Your task to perform on an android device: open chrome privacy settings Image 0: 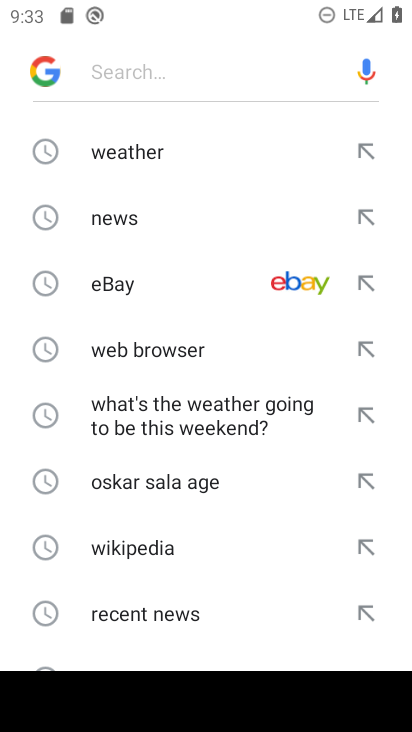
Step 0: press home button
Your task to perform on an android device: open chrome privacy settings Image 1: 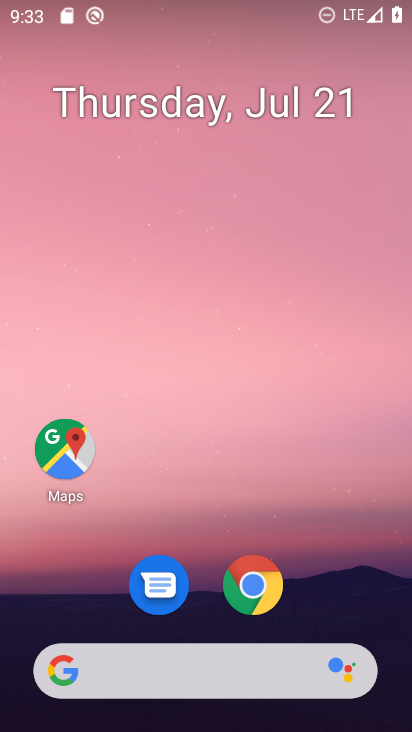
Step 1: click (261, 575)
Your task to perform on an android device: open chrome privacy settings Image 2: 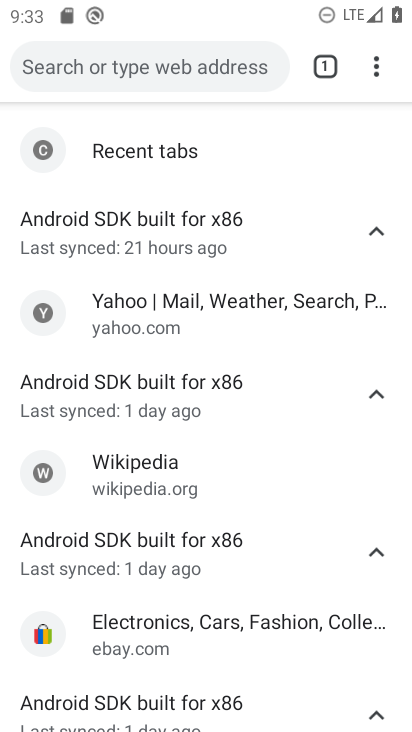
Step 2: press back button
Your task to perform on an android device: open chrome privacy settings Image 3: 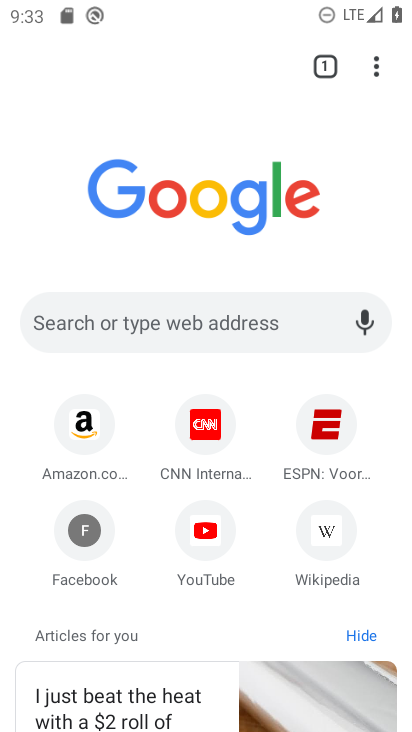
Step 3: click (377, 72)
Your task to perform on an android device: open chrome privacy settings Image 4: 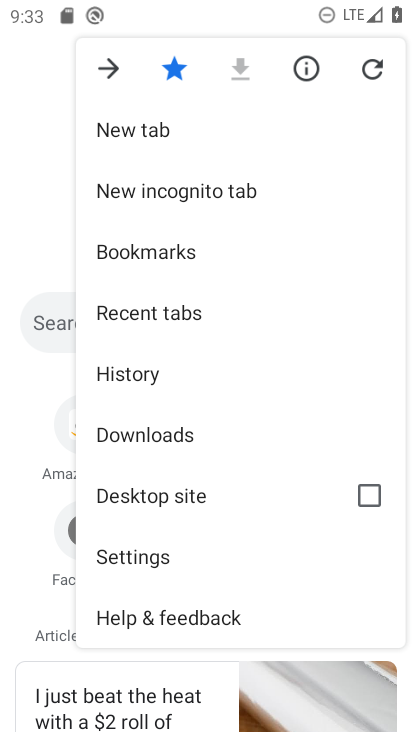
Step 4: click (149, 556)
Your task to perform on an android device: open chrome privacy settings Image 5: 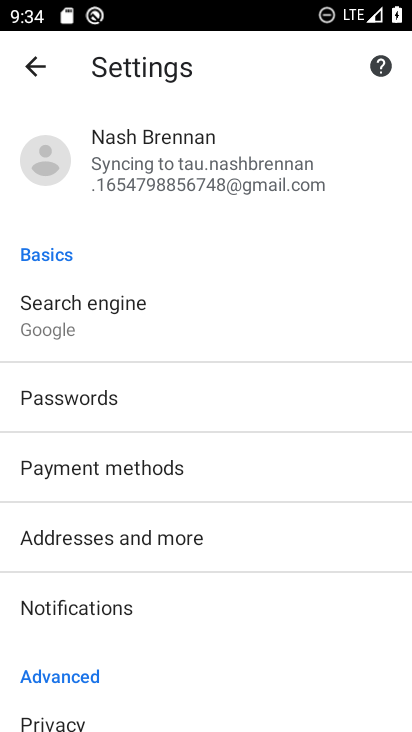
Step 5: click (73, 720)
Your task to perform on an android device: open chrome privacy settings Image 6: 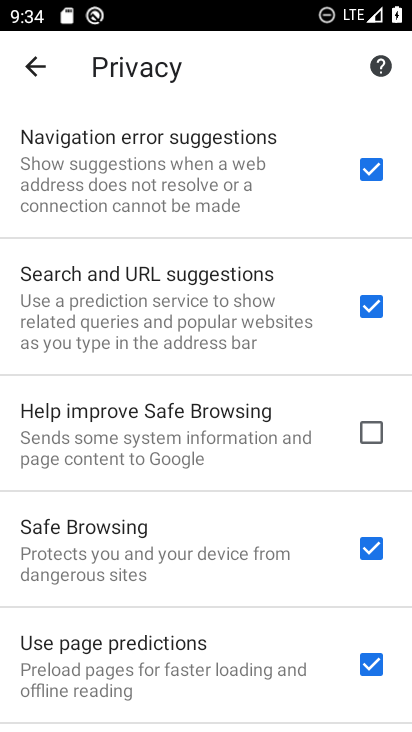
Step 6: task complete